Your task to perform on an android device: Go to privacy settings Image 0: 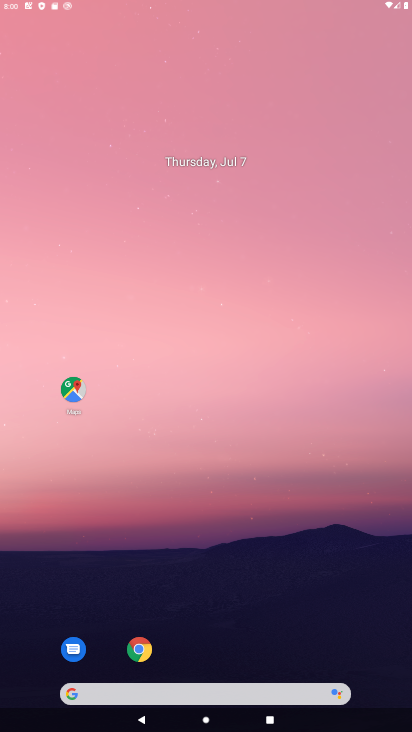
Step 0: click (138, 101)
Your task to perform on an android device: Go to privacy settings Image 1: 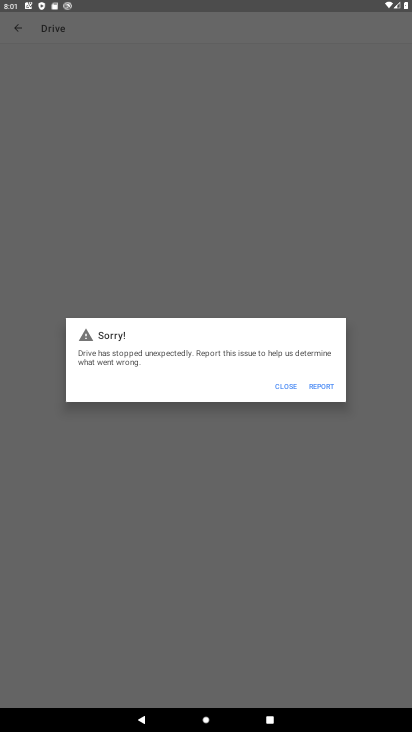
Step 1: click (298, 386)
Your task to perform on an android device: Go to privacy settings Image 2: 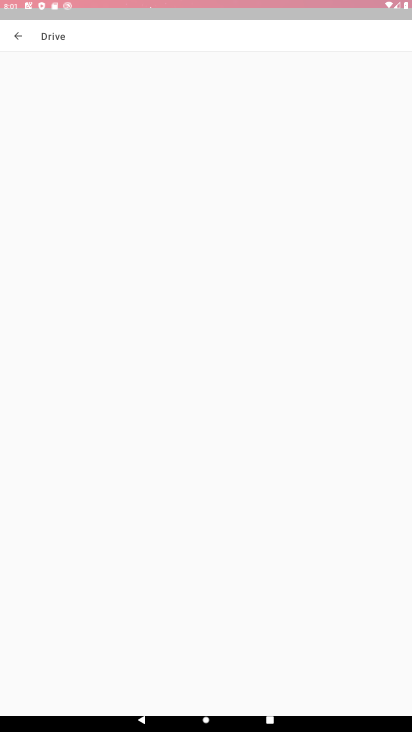
Step 2: click (297, 386)
Your task to perform on an android device: Go to privacy settings Image 3: 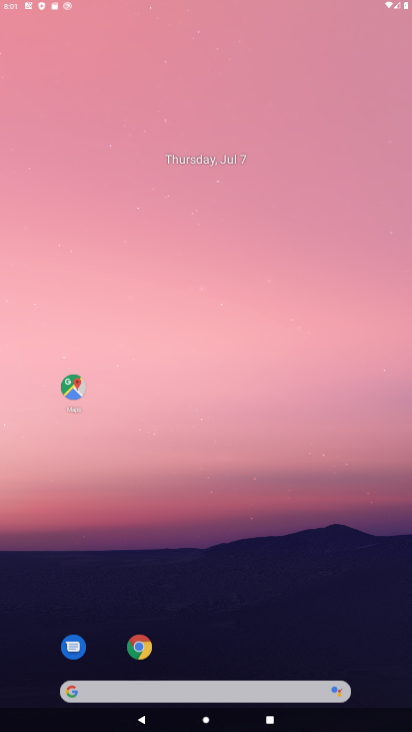
Step 3: click (297, 386)
Your task to perform on an android device: Go to privacy settings Image 4: 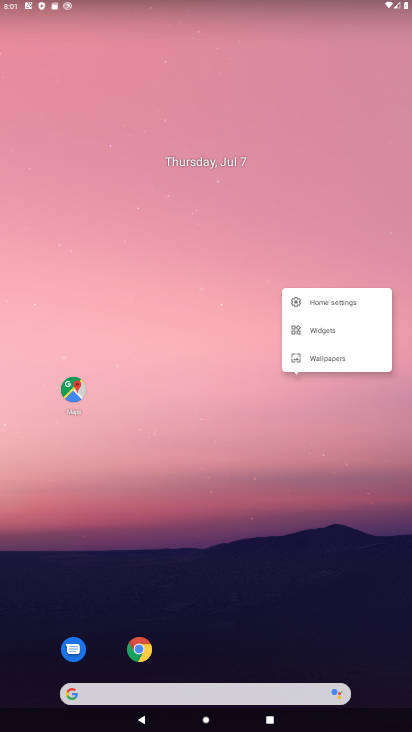
Step 4: drag from (255, 688) to (192, 186)
Your task to perform on an android device: Go to privacy settings Image 5: 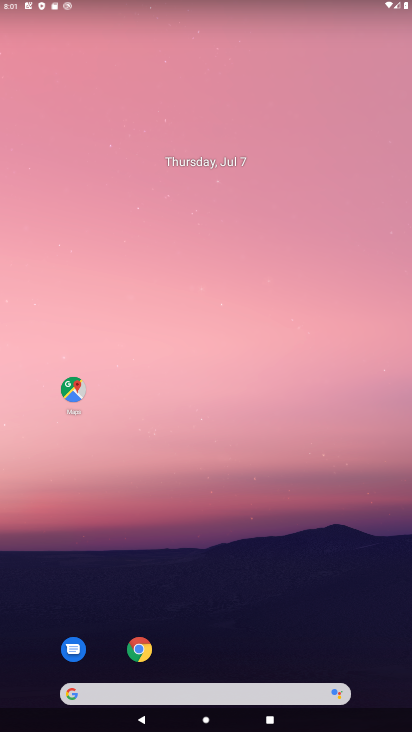
Step 5: drag from (257, 709) to (140, 117)
Your task to perform on an android device: Go to privacy settings Image 6: 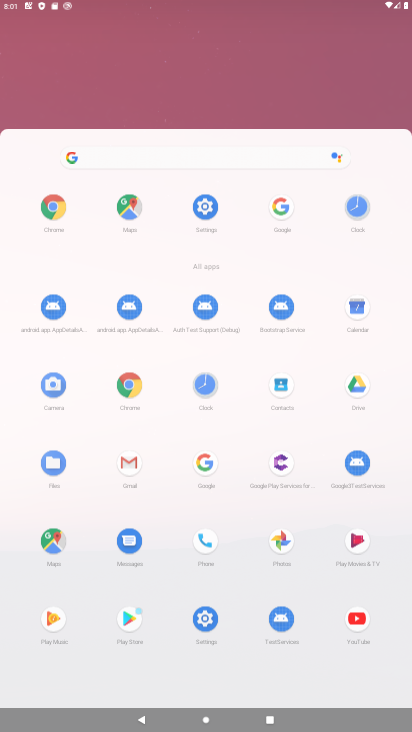
Step 6: drag from (239, 588) to (190, 144)
Your task to perform on an android device: Go to privacy settings Image 7: 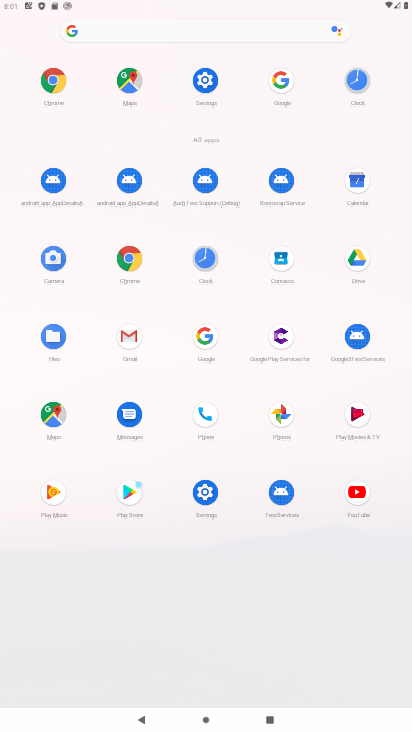
Step 7: click (201, 86)
Your task to perform on an android device: Go to privacy settings Image 8: 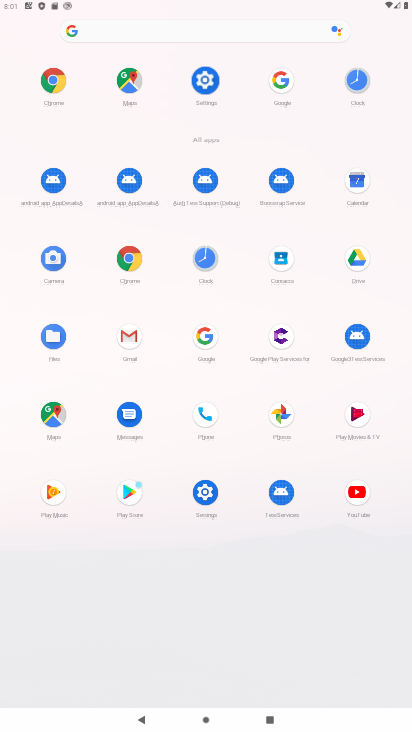
Step 8: click (202, 85)
Your task to perform on an android device: Go to privacy settings Image 9: 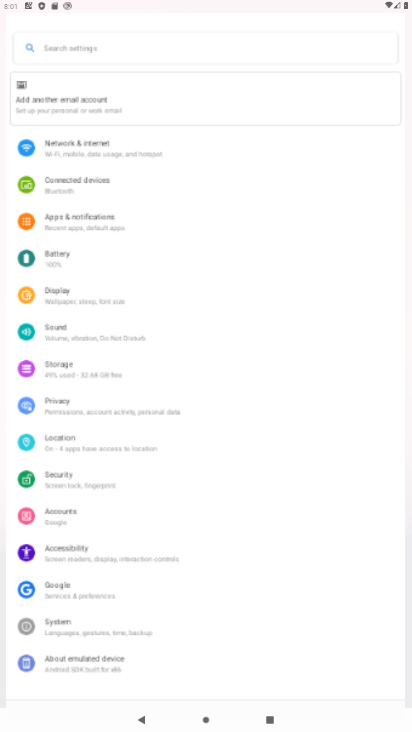
Step 9: click (202, 85)
Your task to perform on an android device: Go to privacy settings Image 10: 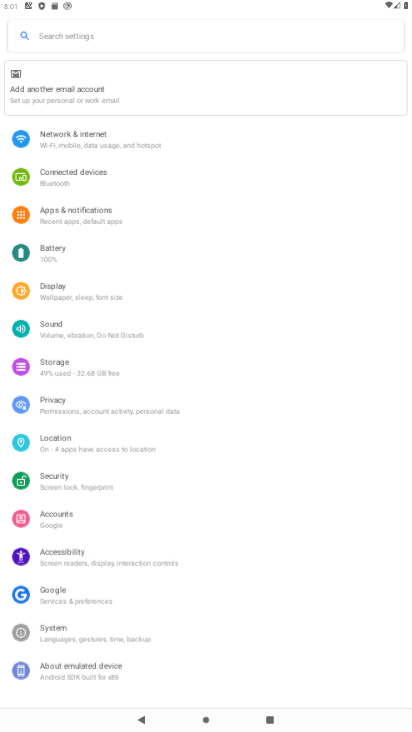
Step 10: click (204, 81)
Your task to perform on an android device: Go to privacy settings Image 11: 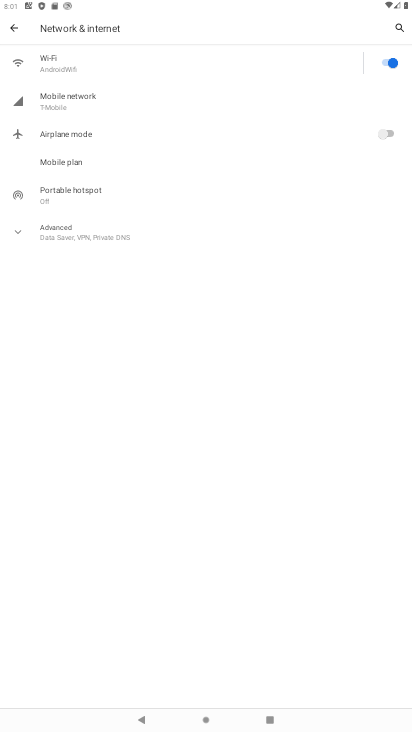
Step 11: click (12, 29)
Your task to perform on an android device: Go to privacy settings Image 12: 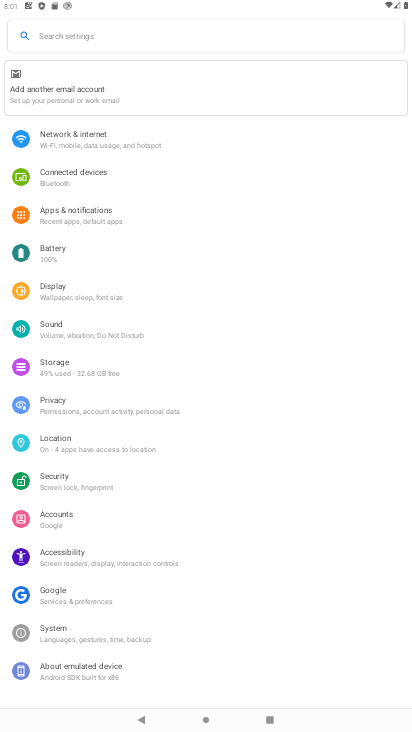
Step 12: click (64, 398)
Your task to perform on an android device: Go to privacy settings Image 13: 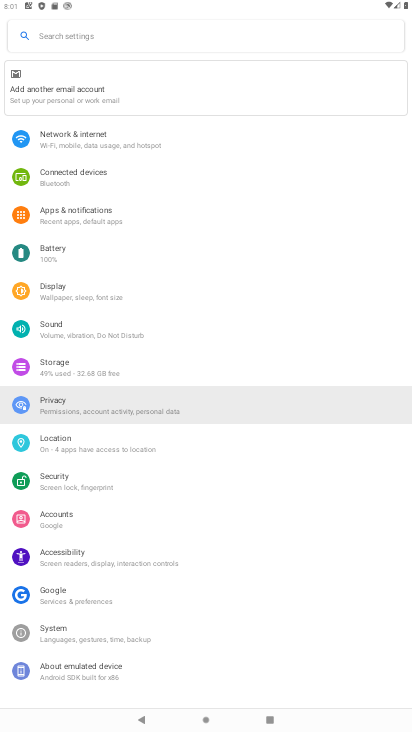
Step 13: click (63, 399)
Your task to perform on an android device: Go to privacy settings Image 14: 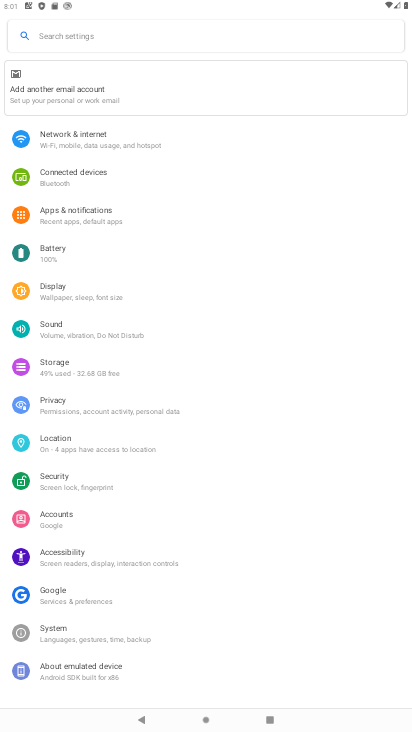
Step 14: click (63, 399)
Your task to perform on an android device: Go to privacy settings Image 15: 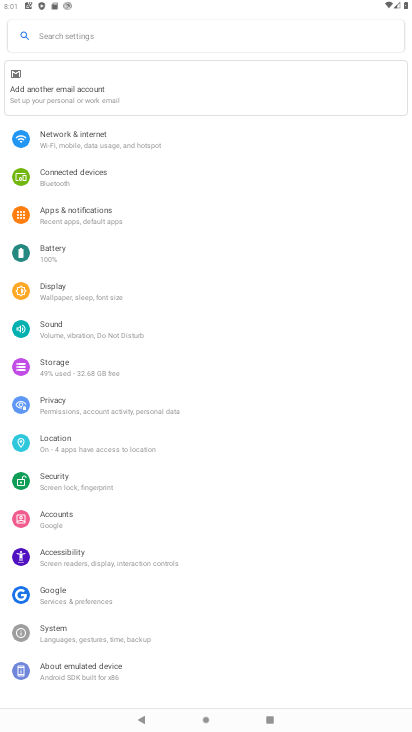
Step 15: click (64, 397)
Your task to perform on an android device: Go to privacy settings Image 16: 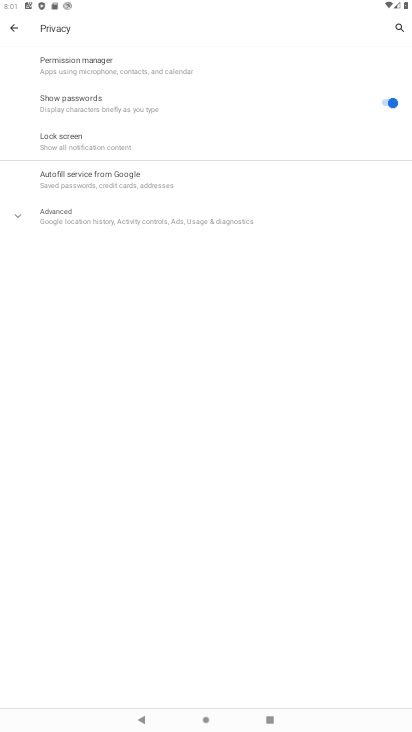
Step 16: task complete